Your task to perform on an android device: allow notifications from all sites in the chrome app Image 0: 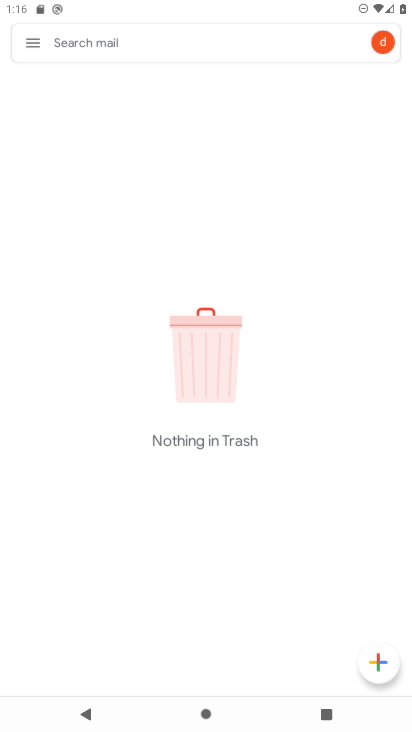
Step 0: click (144, 606)
Your task to perform on an android device: allow notifications from all sites in the chrome app Image 1: 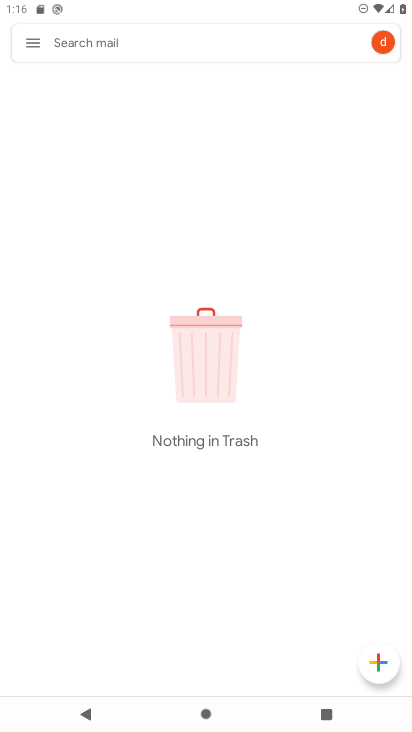
Step 1: press home button
Your task to perform on an android device: allow notifications from all sites in the chrome app Image 2: 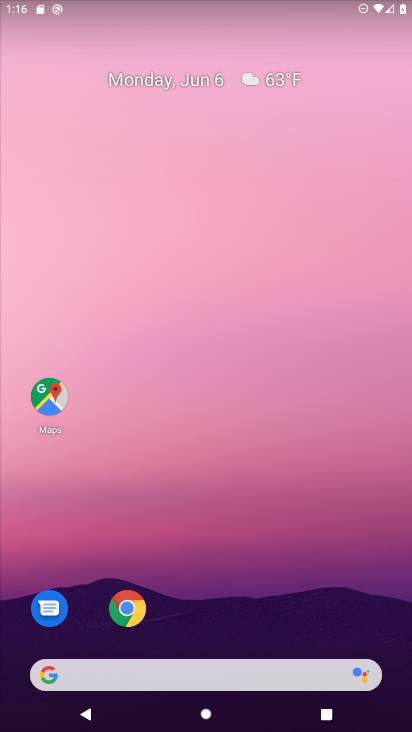
Step 2: click (142, 607)
Your task to perform on an android device: allow notifications from all sites in the chrome app Image 3: 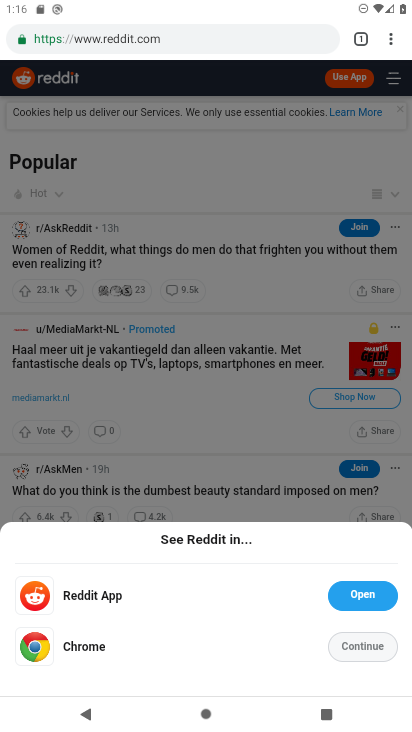
Step 3: click (397, 36)
Your task to perform on an android device: allow notifications from all sites in the chrome app Image 4: 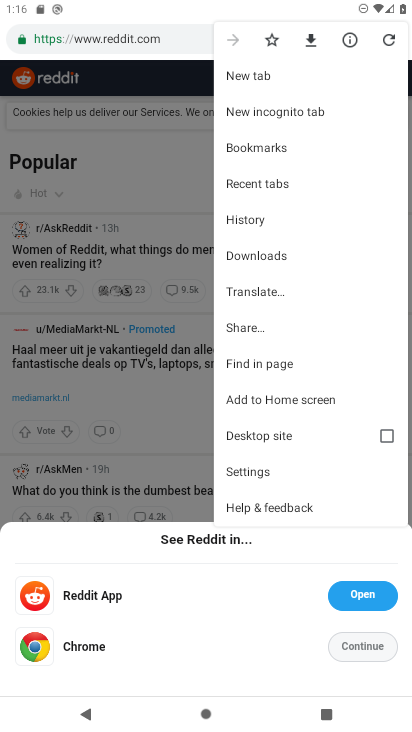
Step 4: click (256, 471)
Your task to perform on an android device: allow notifications from all sites in the chrome app Image 5: 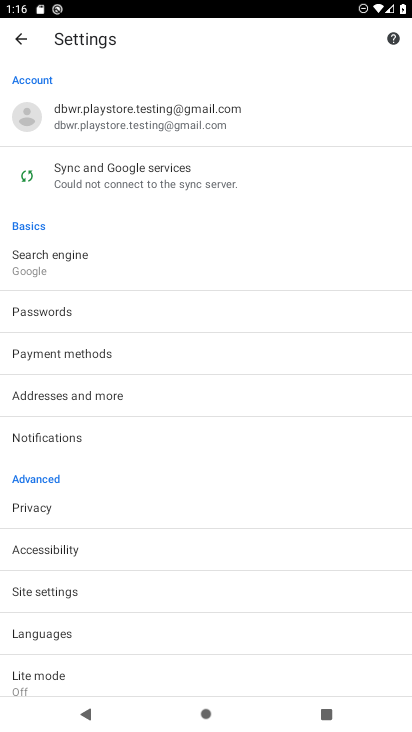
Step 5: click (80, 594)
Your task to perform on an android device: allow notifications from all sites in the chrome app Image 6: 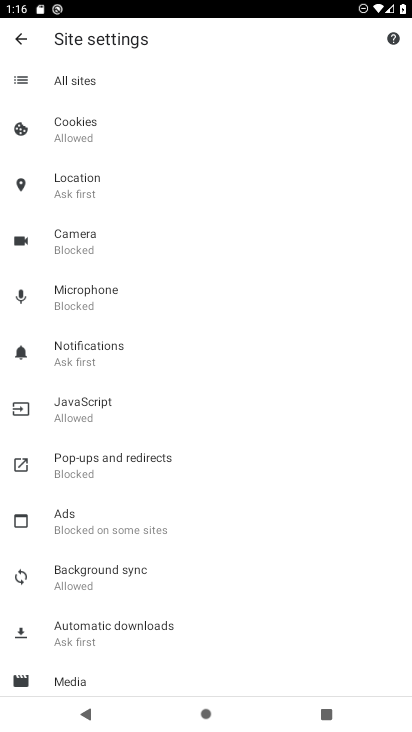
Step 6: click (143, 357)
Your task to perform on an android device: allow notifications from all sites in the chrome app Image 7: 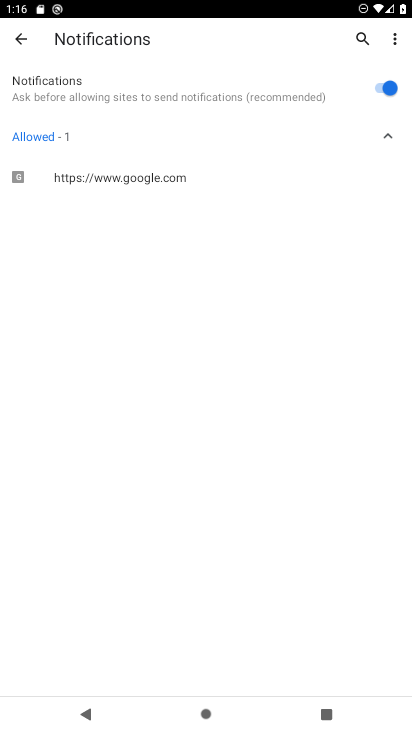
Step 7: task complete